Your task to perform on an android device: Open wifi settings Image 0: 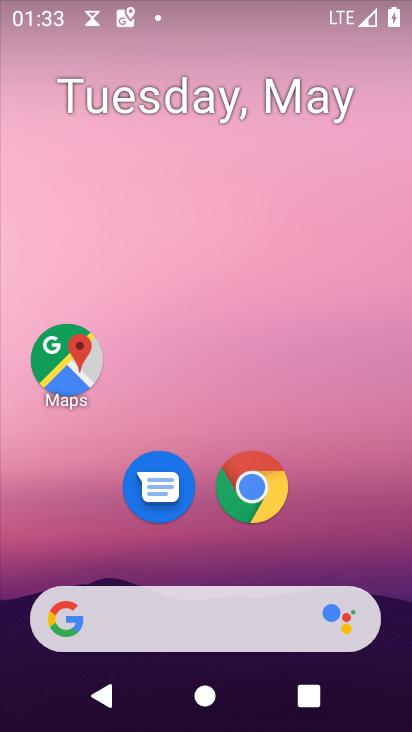
Step 0: drag from (76, 455) to (81, 10)
Your task to perform on an android device: Open wifi settings Image 1: 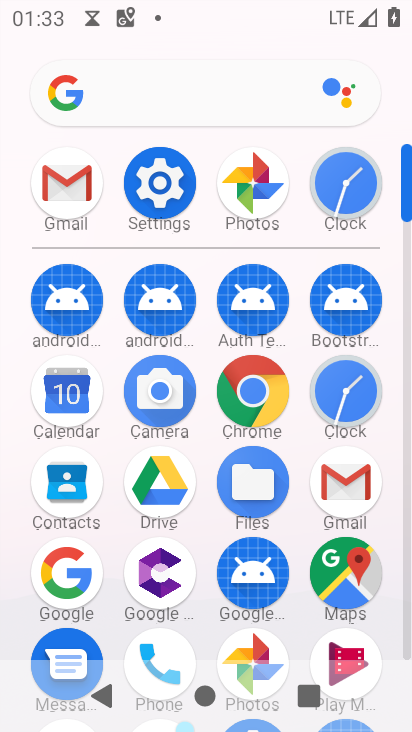
Step 1: click (150, 191)
Your task to perform on an android device: Open wifi settings Image 2: 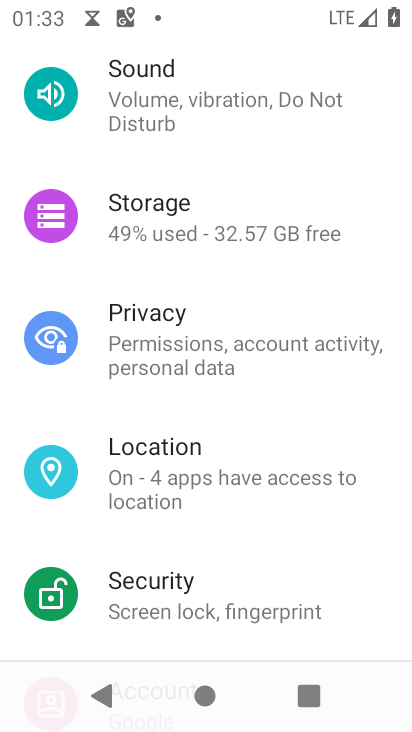
Step 2: drag from (151, 155) to (219, 726)
Your task to perform on an android device: Open wifi settings Image 3: 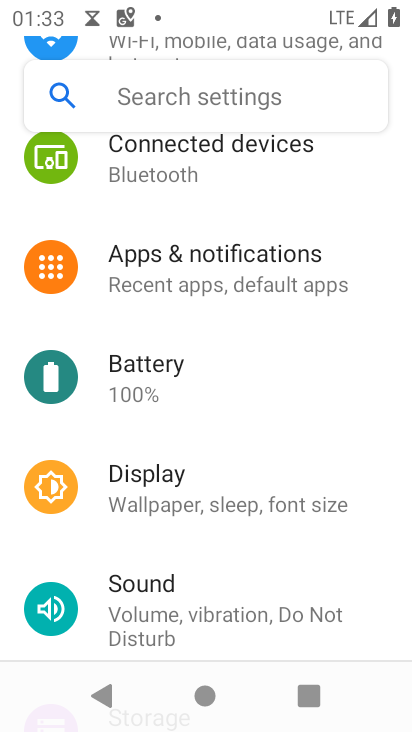
Step 3: drag from (151, 347) to (162, 670)
Your task to perform on an android device: Open wifi settings Image 4: 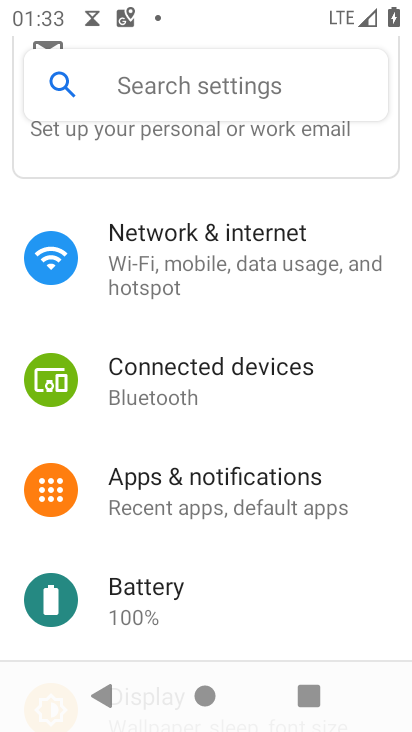
Step 4: click (153, 273)
Your task to perform on an android device: Open wifi settings Image 5: 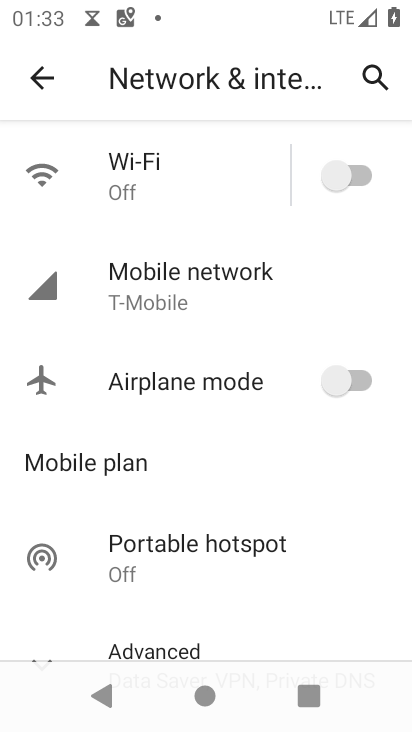
Step 5: click (65, 168)
Your task to perform on an android device: Open wifi settings Image 6: 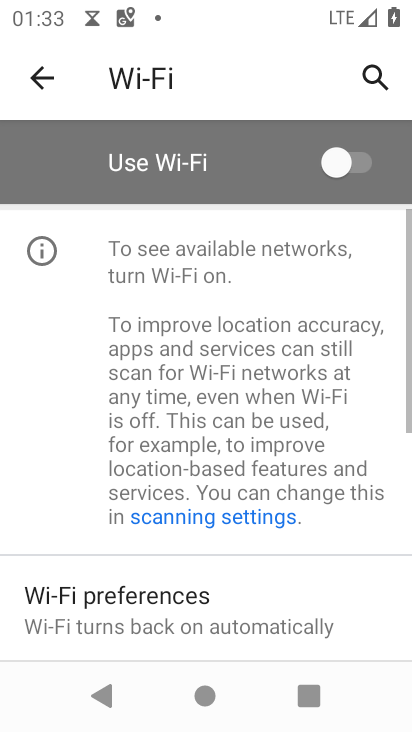
Step 6: task complete